Your task to perform on an android device: change notifications settings Image 0: 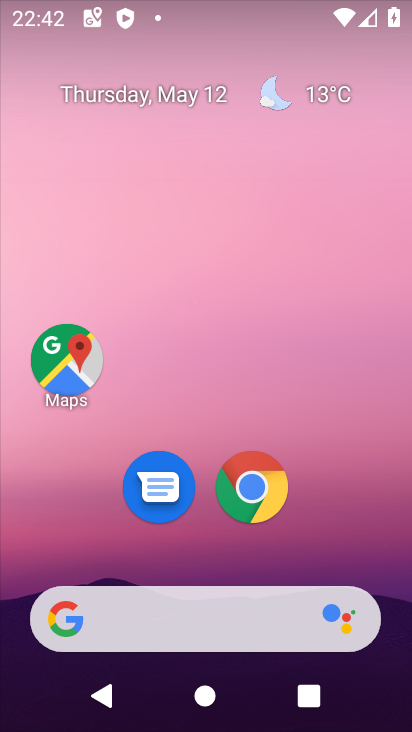
Step 0: drag from (198, 534) to (219, 176)
Your task to perform on an android device: change notifications settings Image 1: 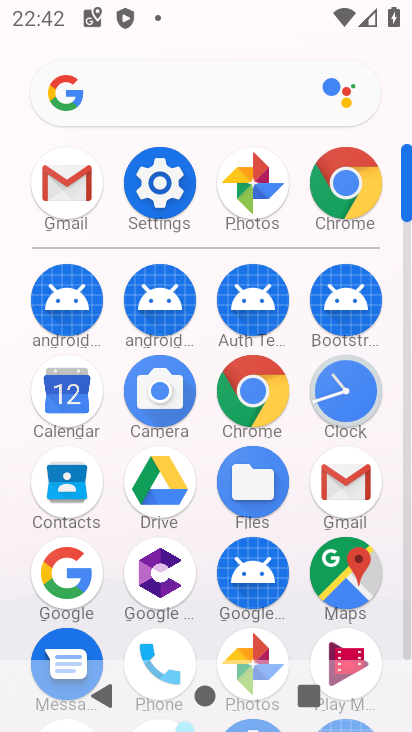
Step 1: click (166, 200)
Your task to perform on an android device: change notifications settings Image 2: 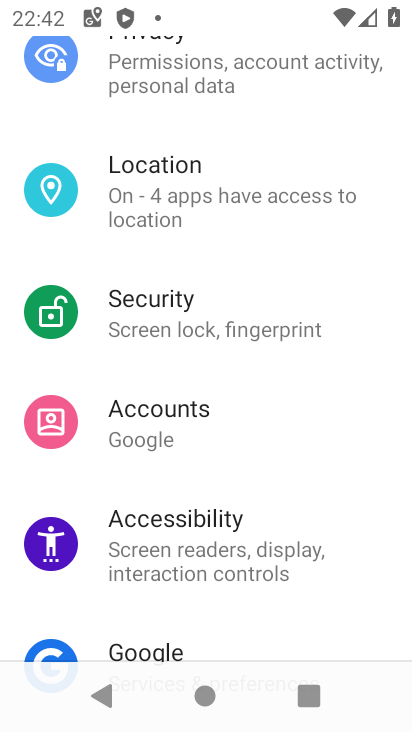
Step 2: drag from (166, 200) to (175, 616)
Your task to perform on an android device: change notifications settings Image 3: 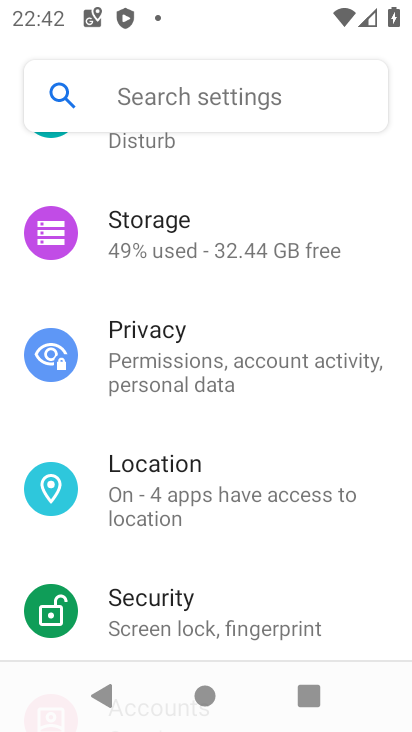
Step 3: drag from (175, 188) to (175, 644)
Your task to perform on an android device: change notifications settings Image 4: 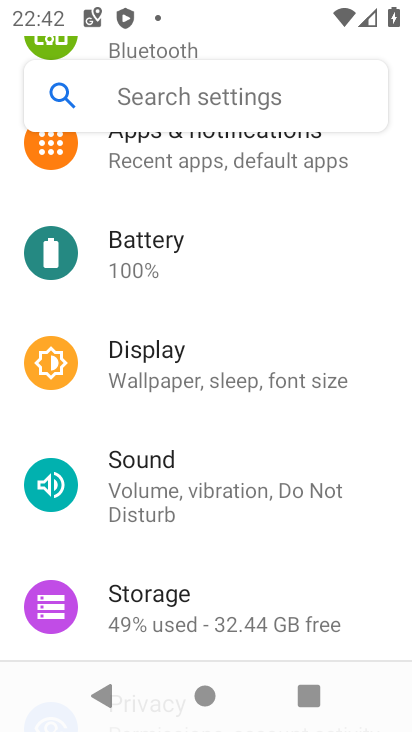
Step 4: drag from (215, 233) to (229, 469)
Your task to perform on an android device: change notifications settings Image 5: 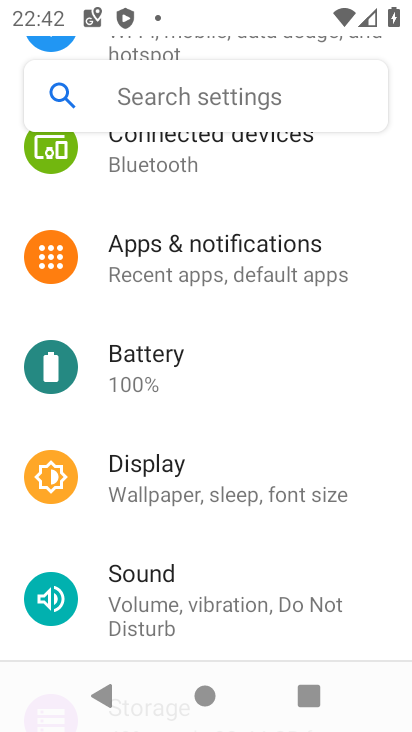
Step 5: click (181, 297)
Your task to perform on an android device: change notifications settings Image 6: 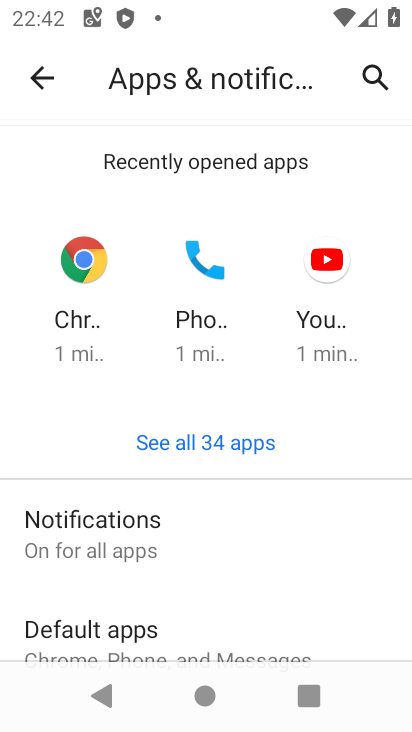
Step 6: click (146, 566)
Your task to perform on an android device: change notifications settings Image 7: 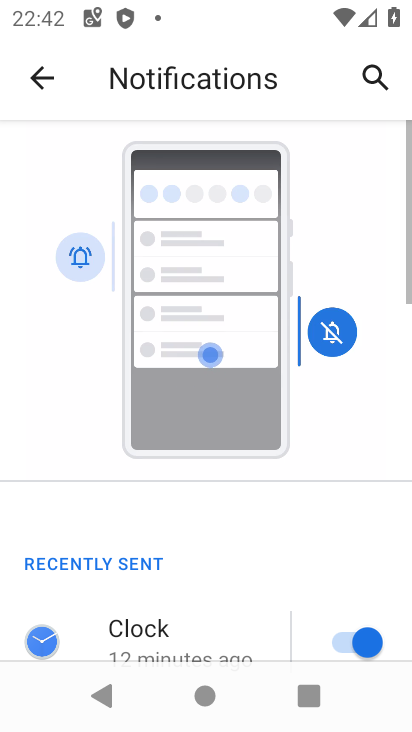
Step 7: drag from (146, 566) to (267, 87)
Your task to perform on an android device: change notifications settings Image 8: 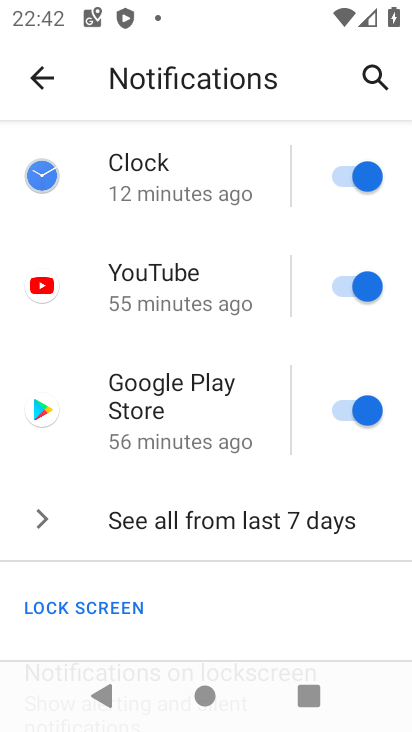
Step 8: drag from (197, 610) to (262, 258)
Your task to perform on an android device: change notifications settings Image 9: 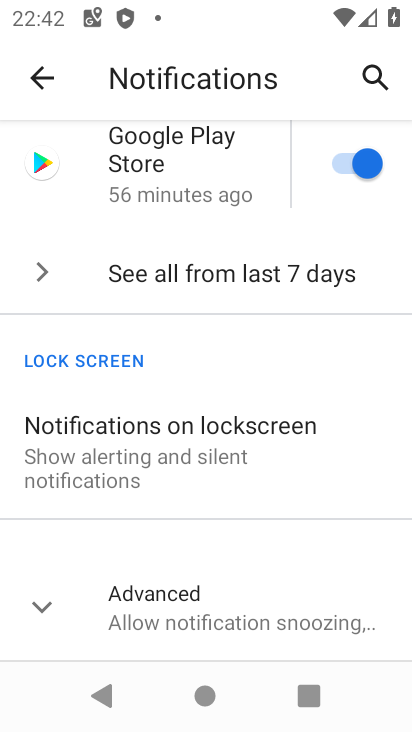
Step 9: click (178, 592)
Your task to perform on an android device: change notifications settings Image 10: 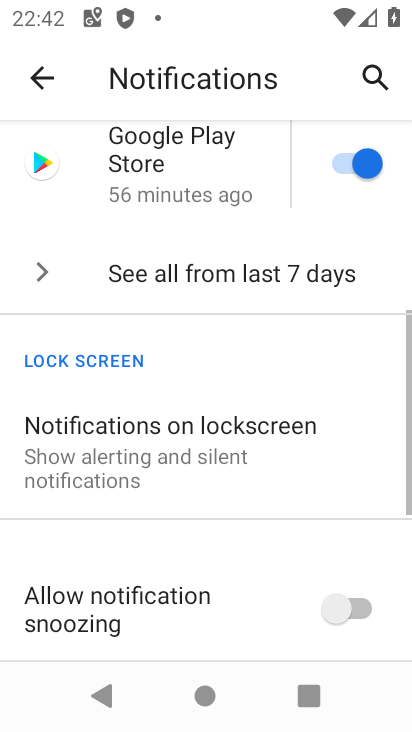
Step 10: drag from (178, 592) to (333, 203)
Your task to perform on an android device: change notifications settings Image 11: 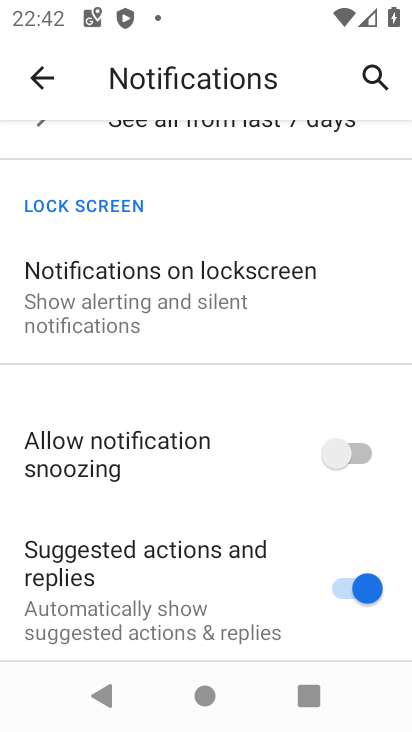
Step 11: click (363, 468)
Your task to perform on an android device: change notifications settings Image 12: 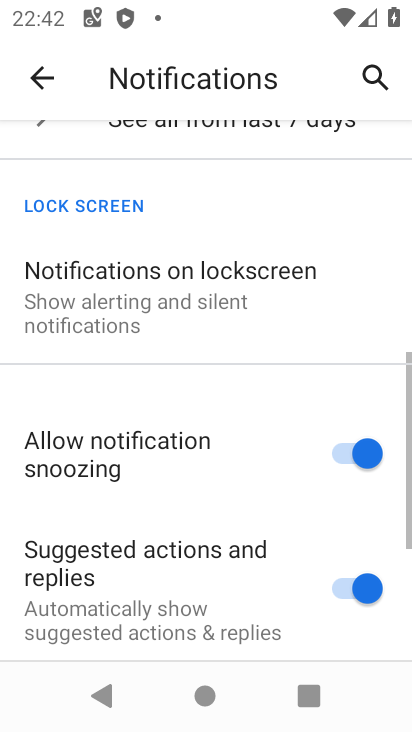
Step 12: click (338, 586)
Your task to perform on an android device: change notifications settings Image 13: 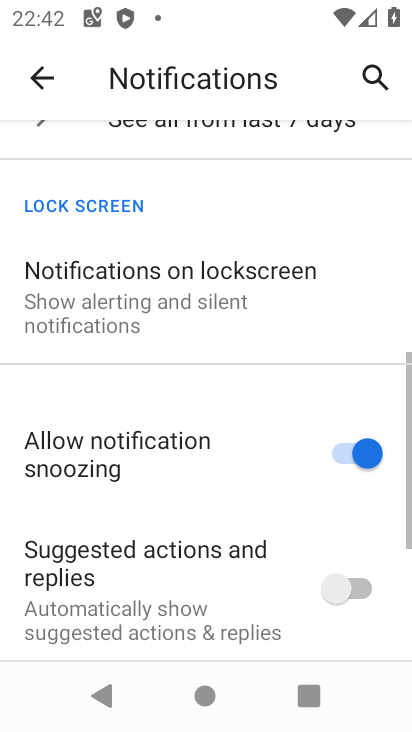
Step 13: drag from (224, 579) to (243, 174)
Your task to perform on an android device: change notifications settings Image 14: 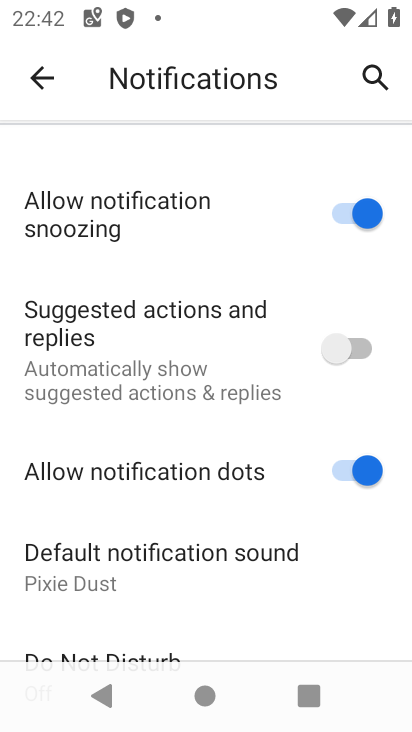
Step 14: click (336, 485)
Your task to perform on an android device: change notifications settings Image 15: 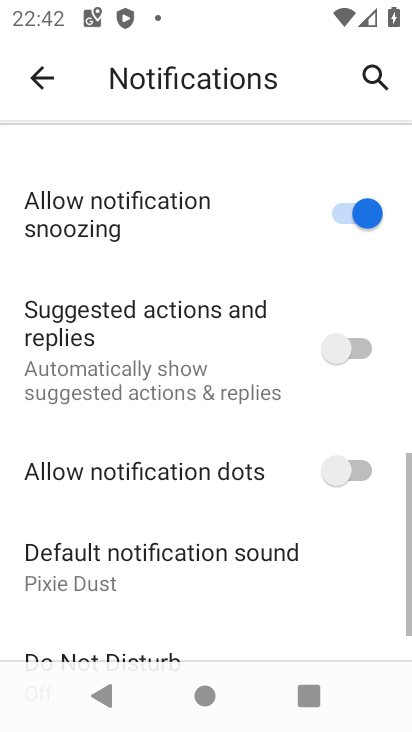
Step 15: task complete